Your task to perform on an android device: read, delete, or share a saved page in the chrome app Image 0: 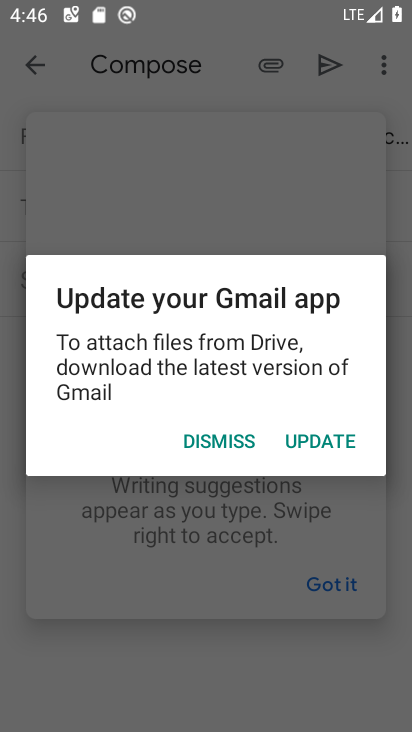
Step 0: press back button
Your task to perform on an android device: read, delete, or share a saved page in the chrome app Image 1: 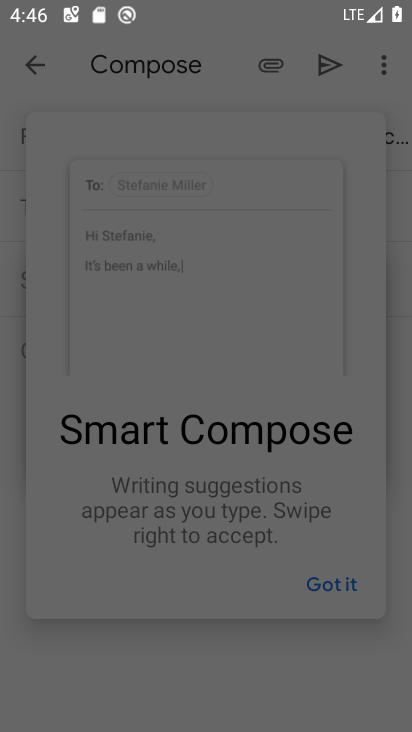
Step 1: press back button
Your task to perform on an android device: read, delete, or share a saved page in the chrome app Image 2: 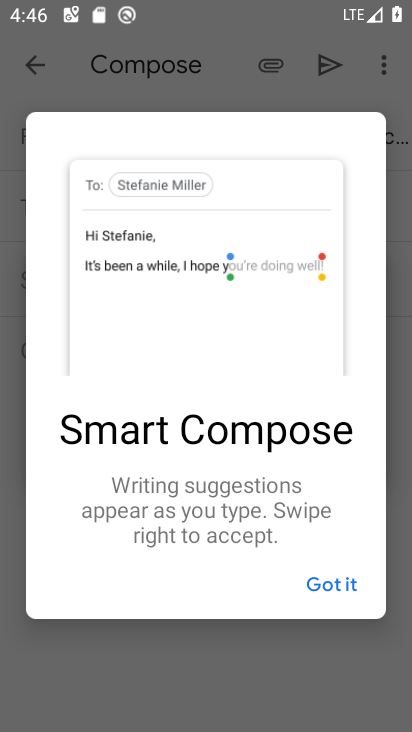
Step 2: press back button
Your task to perform on an android device: read, delete, or share a saved page in the chrome app Image 3: 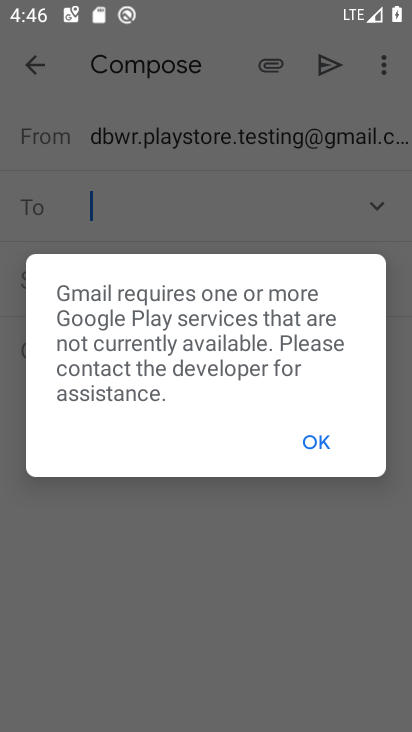
Step 3: press back button
Your task to perform on an android device: read, delete, or share a saved page in the chrome app Image 4: 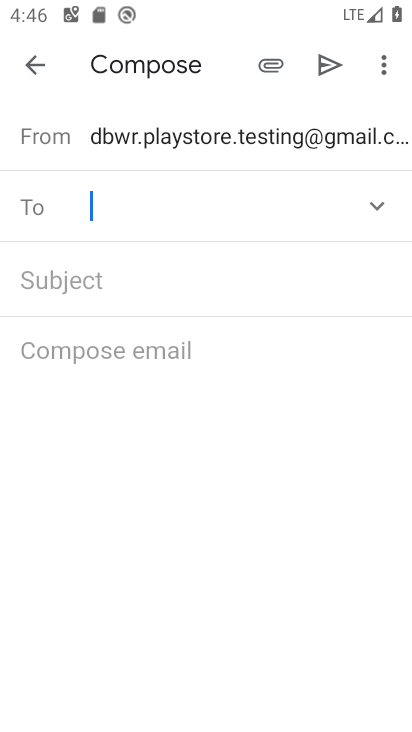
Step 4: press back button
Your task to perform on an android device: read, delete, or share a saved page in the chrome app Image 5: 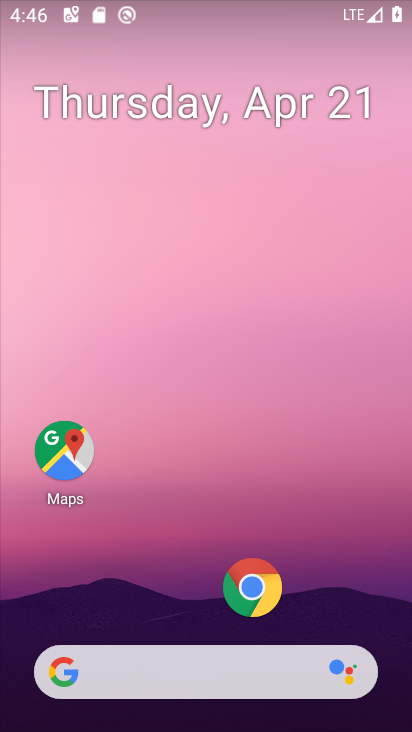
Step 5: click (240, 606)
Your task to perform on an android device: read, delete, or share a saved page in the chrome app Image 6: 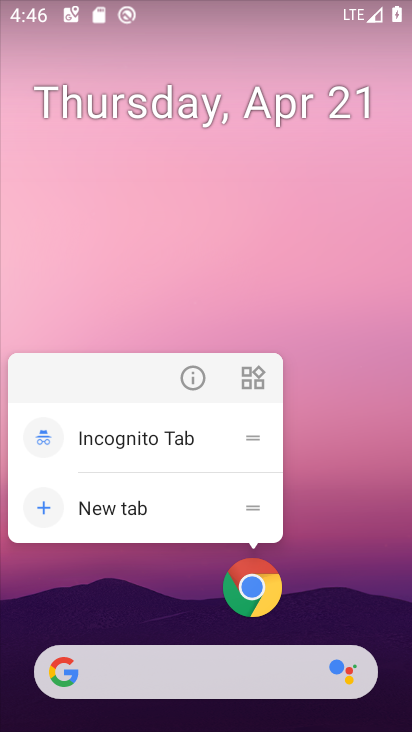
Step 6: click (243, 601)
Your task to perform on an android device: read, delete, or share a saved page in the chrome app Image 7: 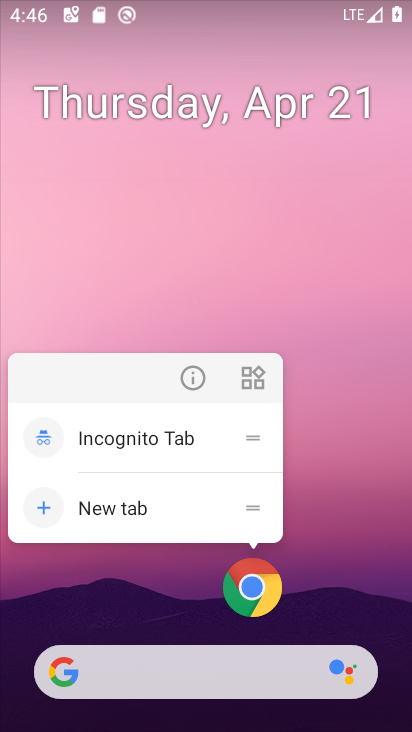
Step 7: click (253, 586)
Your task to perform on an android device: read, delete, or share a saved page in the chrome app Image 8: 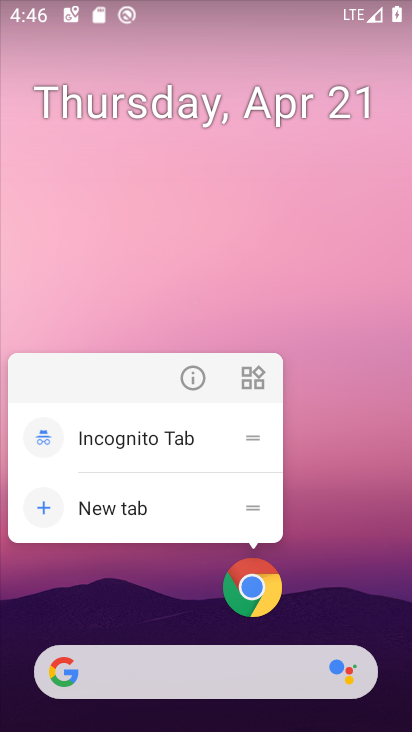
Step 8: click (261, 590)
Your task to perform on an android device: read, delete, or share a saved page in the chrome app Image 9: 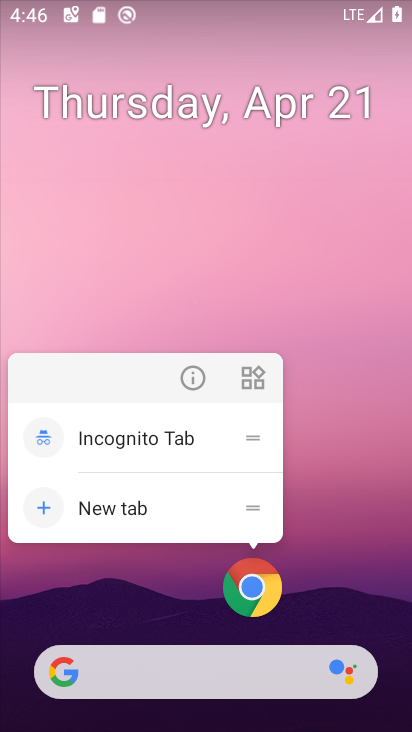
Step 9: click (255, 597)
Your task to perform on an android device: read, delete, or share a saved page in the chrome app Image 10: 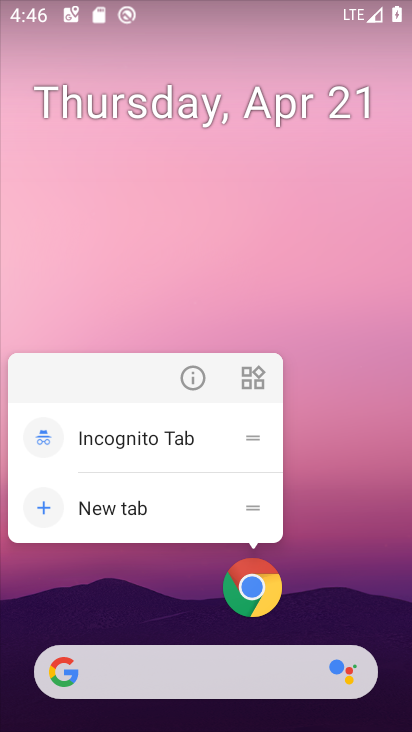
Step 10: click (255, 597)
Your task to perform on an android device: read, delete, or share a saved page in the chrome app Image 11: 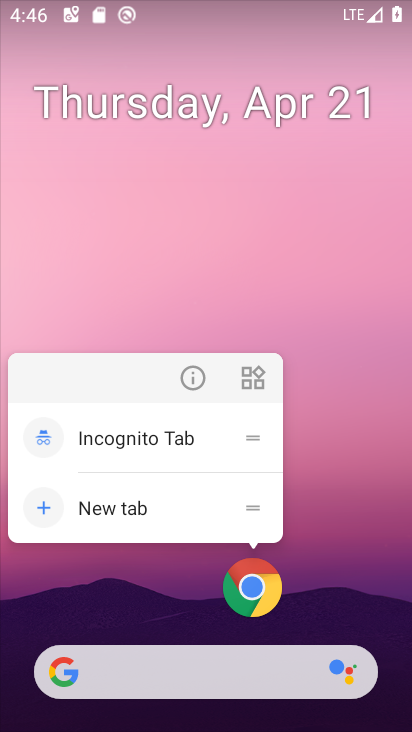
Step 11: click (255, 597)
Your task to perform on an android device: read, delete, or share a saved page in the chrome app Image 12: 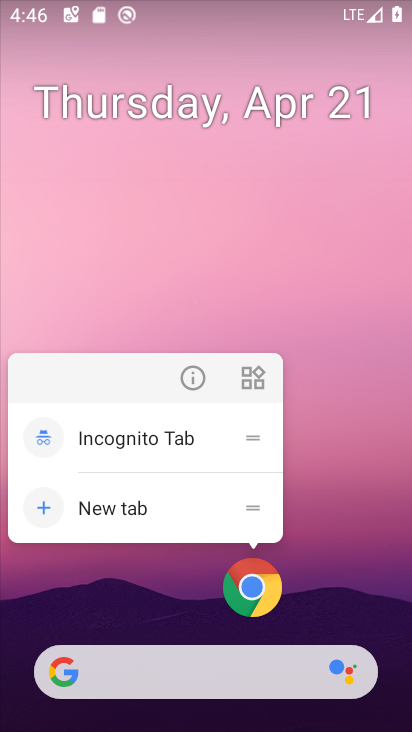
Step 12: click (255, 597)
Your task to perform on an android device: read, delete, or share a saved page in the chrome app Image 13: 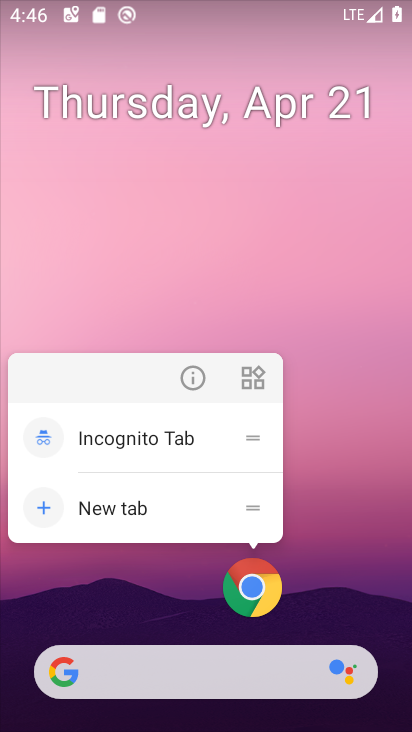
Step 13: click (254, 592)
Your task to perform on an android device: read, delete, or share a saved page in the chrome app Image 14: 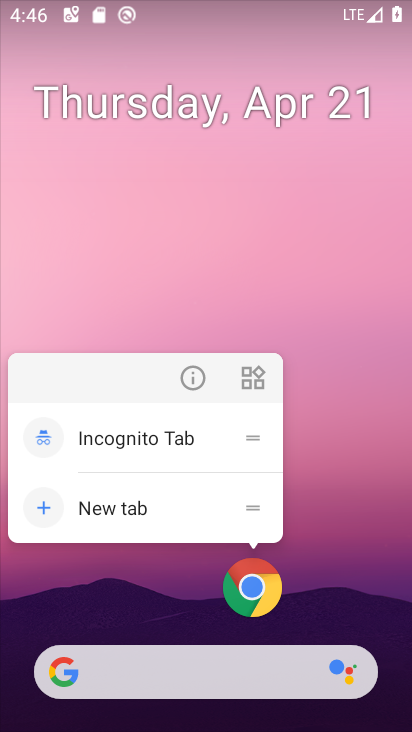
Step 14: click (254, 592)
Your task to perform on an android device: read, delete, or share a saved page in the chrome app Image 15: 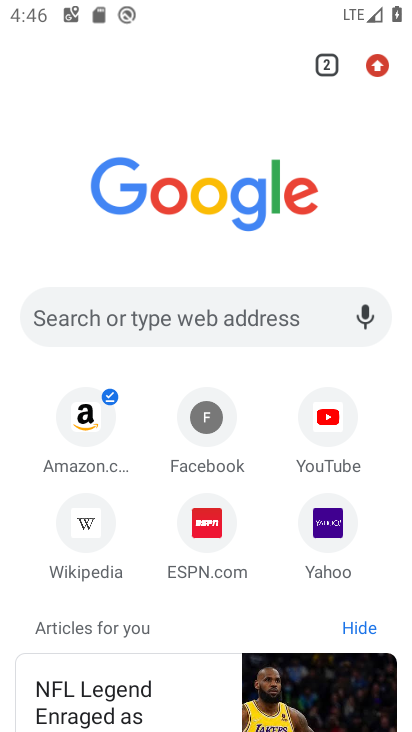
Step 15: drag from (372, 68) to (258, 515)
Your task to perform on an android device: read, delete, or share a saved page in the chrome app Image 16: 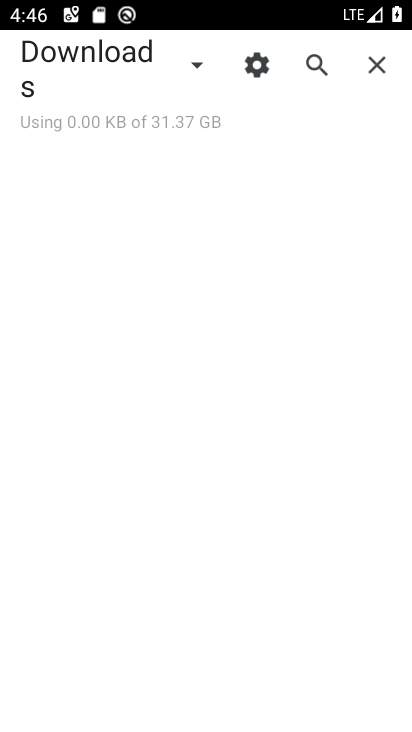
Step 16: click (98, 67)
Your task to perform on an android device: read, delete, or share a saved page in the chrome app Image 17: 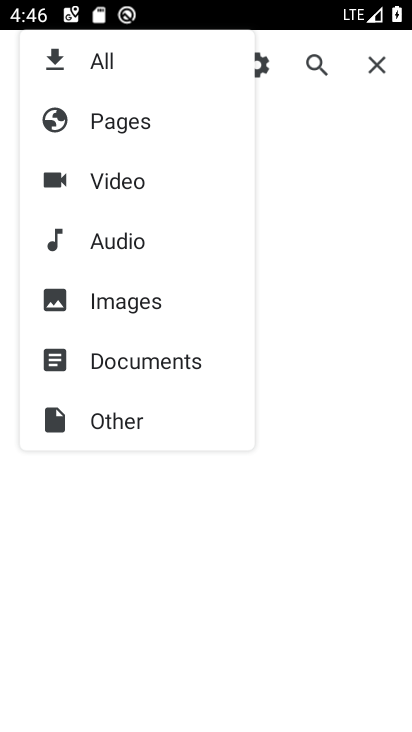
Step 17: click (153, 116)
Your task to perform on an android device: read, delete, or share a saved page in the chrome app Image 18: 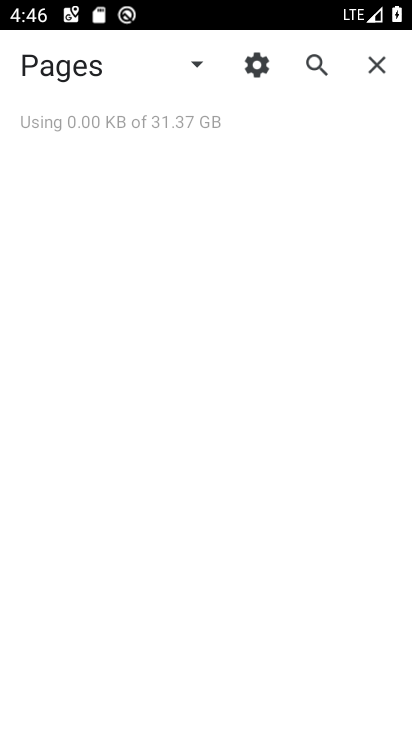
Step 18: task complete